Your task to perform on an android device: What's on my calendar tomorrow? Image 0: 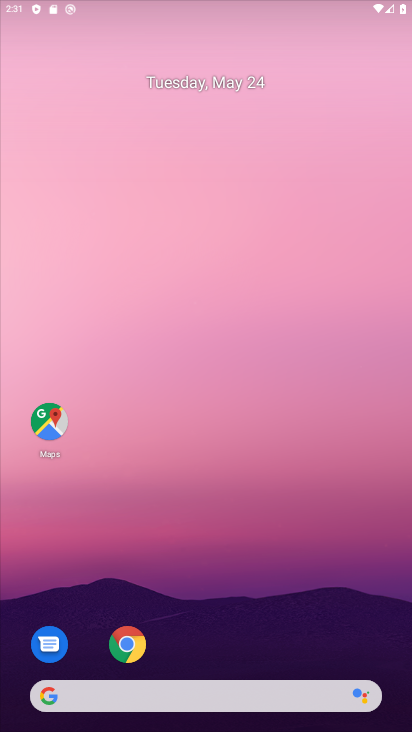
Step 0: drag from (129, 646) to (147, 229)
Your task to perform on an android device: What's on my calendar tomorrow? Image 1: 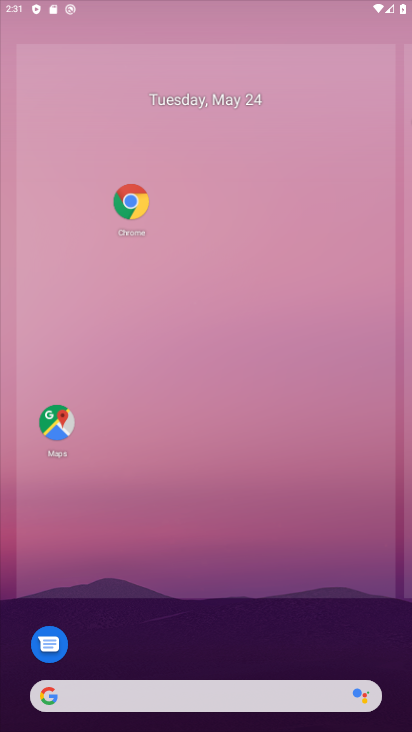
Step 1: drag from (272, 613) to (239, 66)
Your task to perform on an android device: What's on my calendar tomorrow? Image 2: 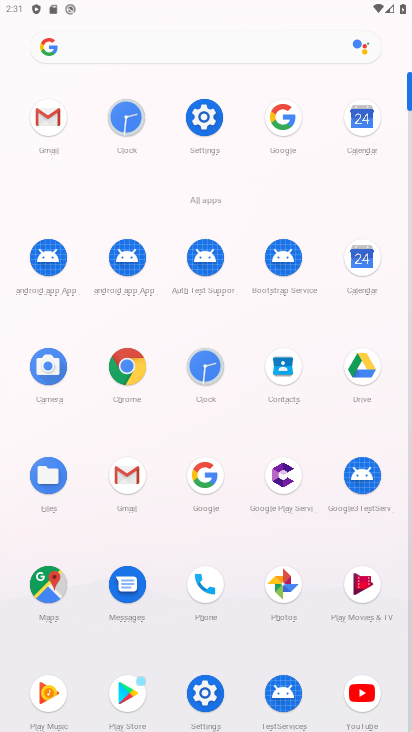
Step 2: click (367, 260)
Your task to perform on an android device: What's on my calendar tomorrow? Image 3: 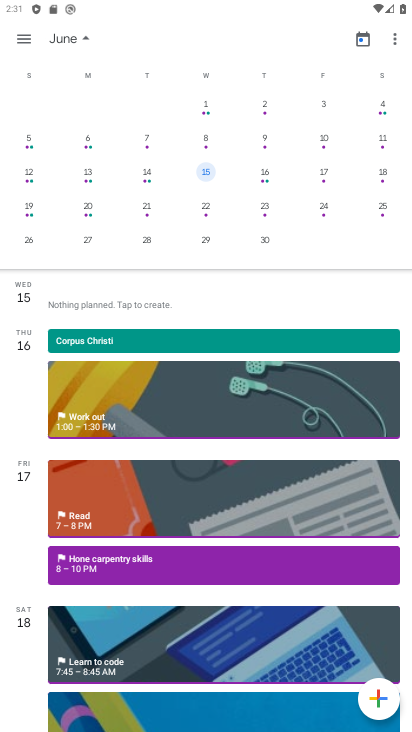
Step 3: drag from (18, 253) to (399, 238)
Your task to perform on an android device: What's on my calendar tomorrow? Image 4: 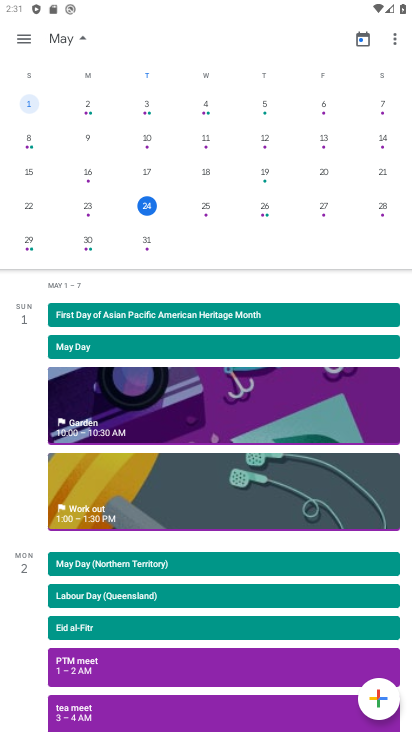
Step 4: click (205, 208)
Your task to perform on an android device: What's on my calendar tomorrow? Image 5: 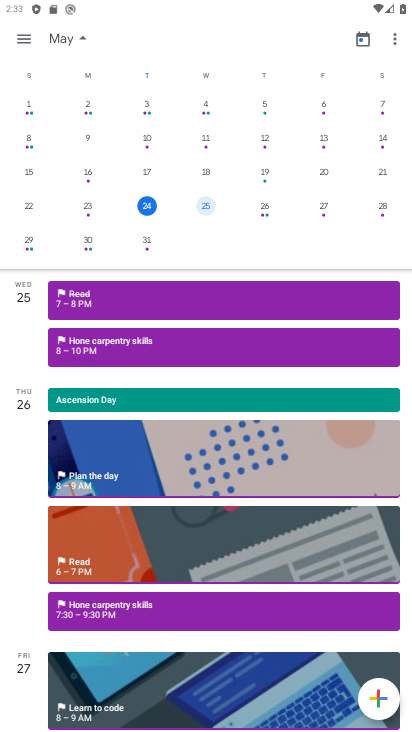
Step 5: task complete